Your task to perform on an android device: create a new album in the google photos Image 0: 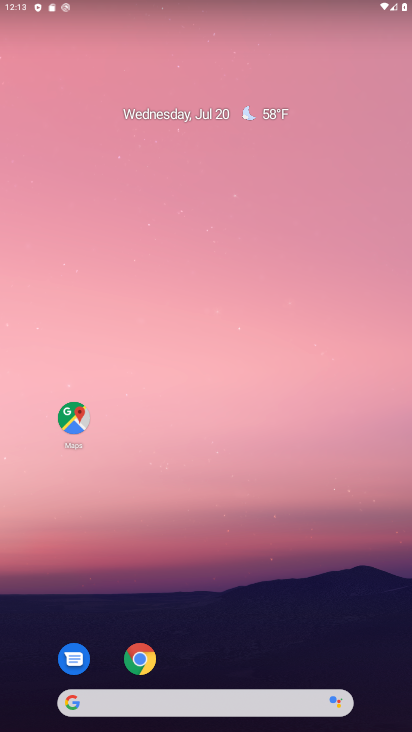
Step 0: drag from (215, 666) to (252, 202)
Your task to perform on an android device: create a new album in the google photos Image 1: 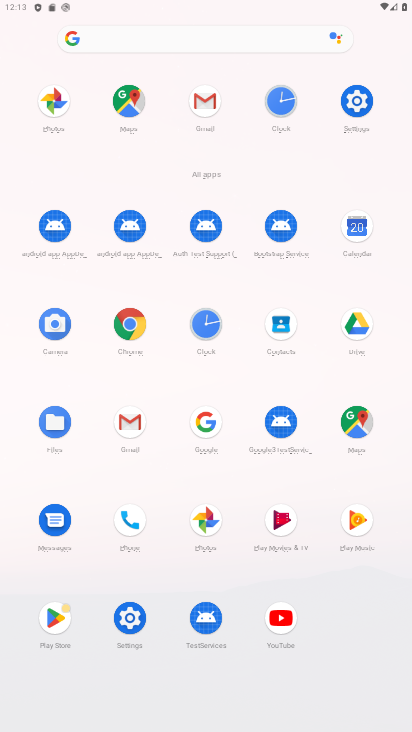
Step 1: click (202, 515)
Your task to perform on an android device: create a new album in the google photos Image 2: 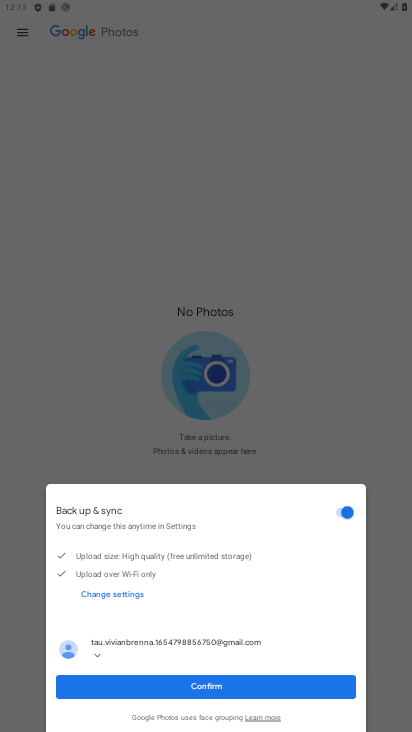
Step 2: click (207, 679)
Your task to perform on an android device: create a new album in the google photos Image 3: 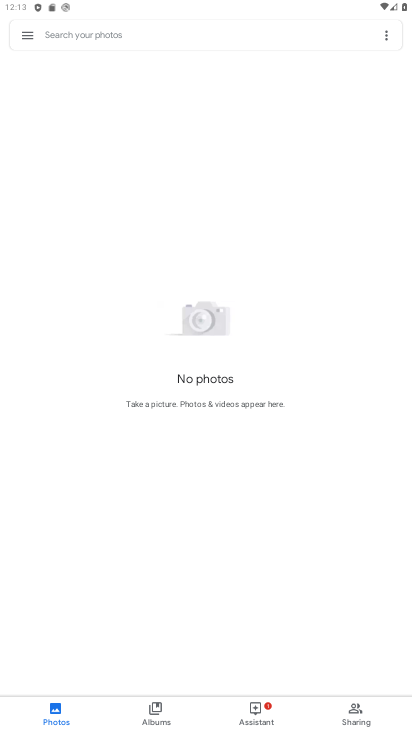
Step 3: click (155, 707)
Your task to perform on an android device: create a new album in the google photos Image 4: 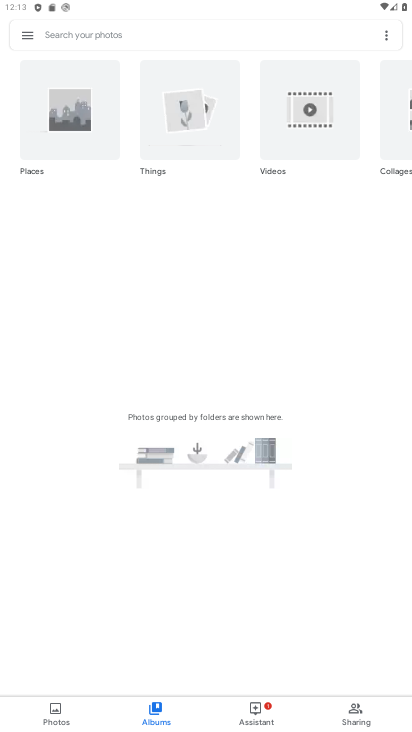
Step 4: click (384, 31)
Your task to perform on an android device: create a new album in the google photos Image 5: 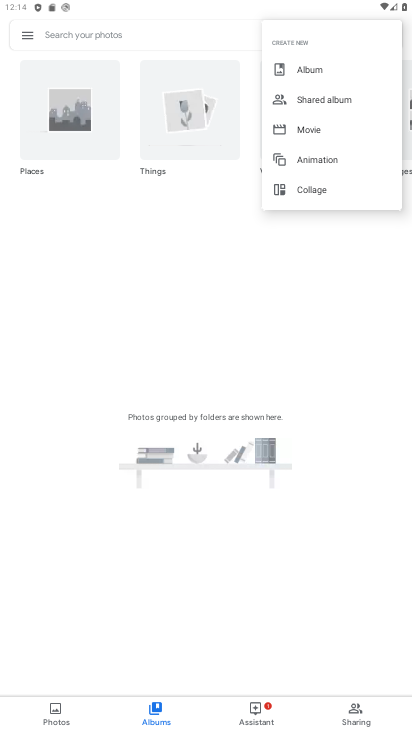
Step 5: click (312, 63)
Your task to perform on an android device: create a new album in the google photos Image 6: 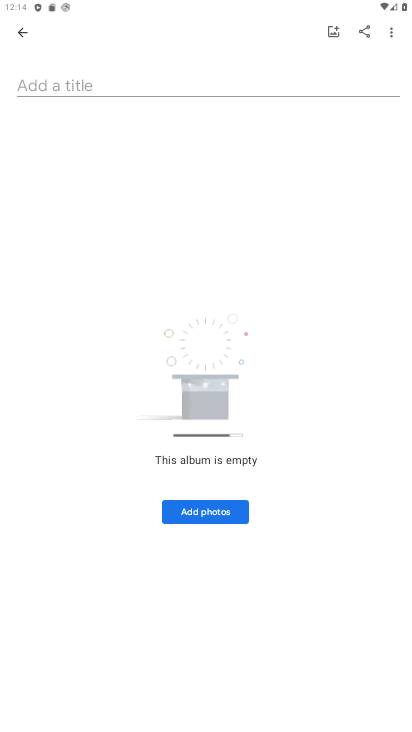
Step 6: click (204, 507)
Your task to perform on an android device: create a new album in the google photos Image 7: 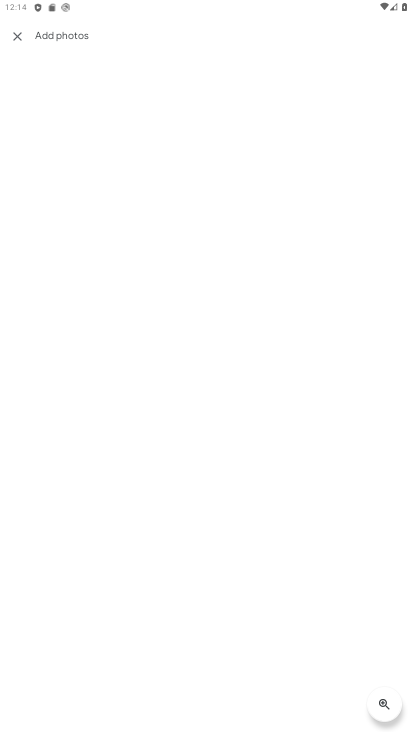
Step 7: task complete